Your task to perform on an android device: add a label to a message in the gmail app Image 0: 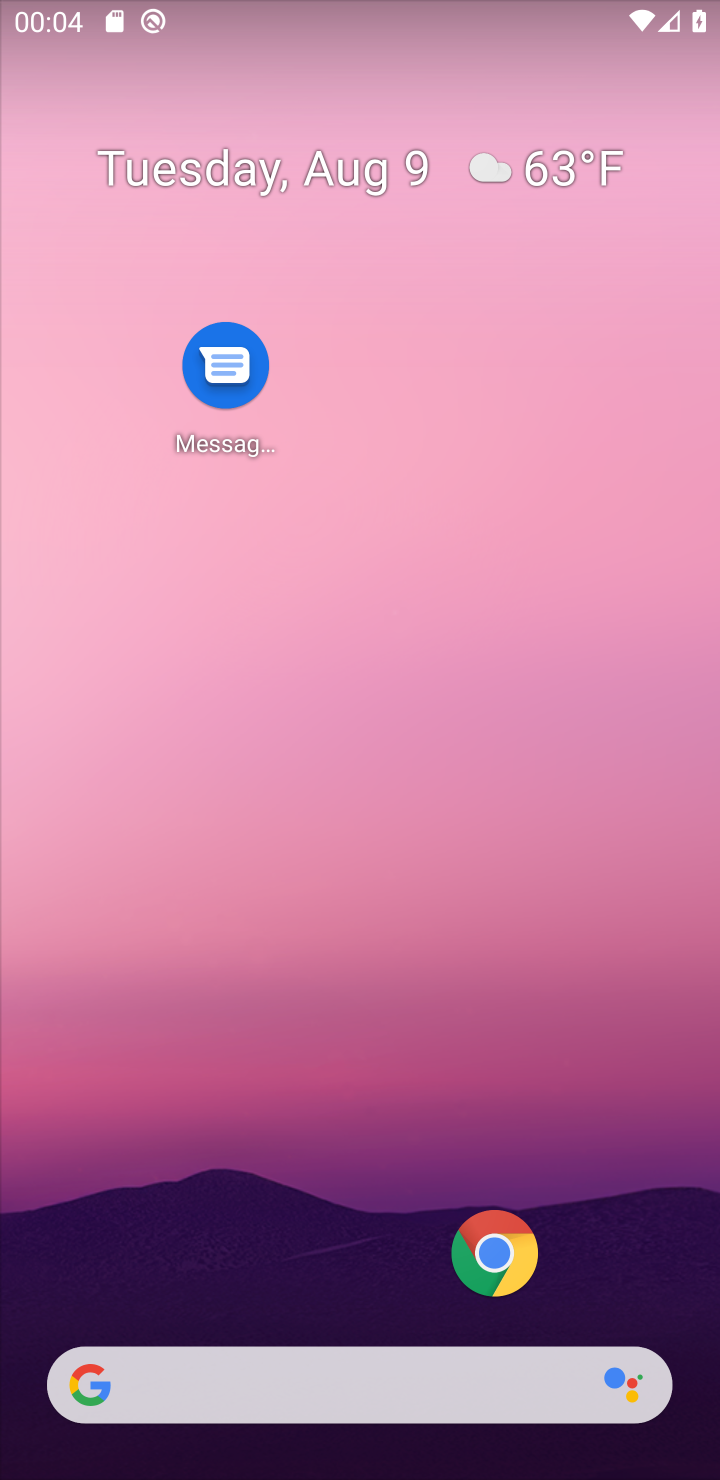
Step 0: drag from (82, 1170) to (93, 693)
Your task to perform on an android device: add a label to a message in the gmail app Image 1: 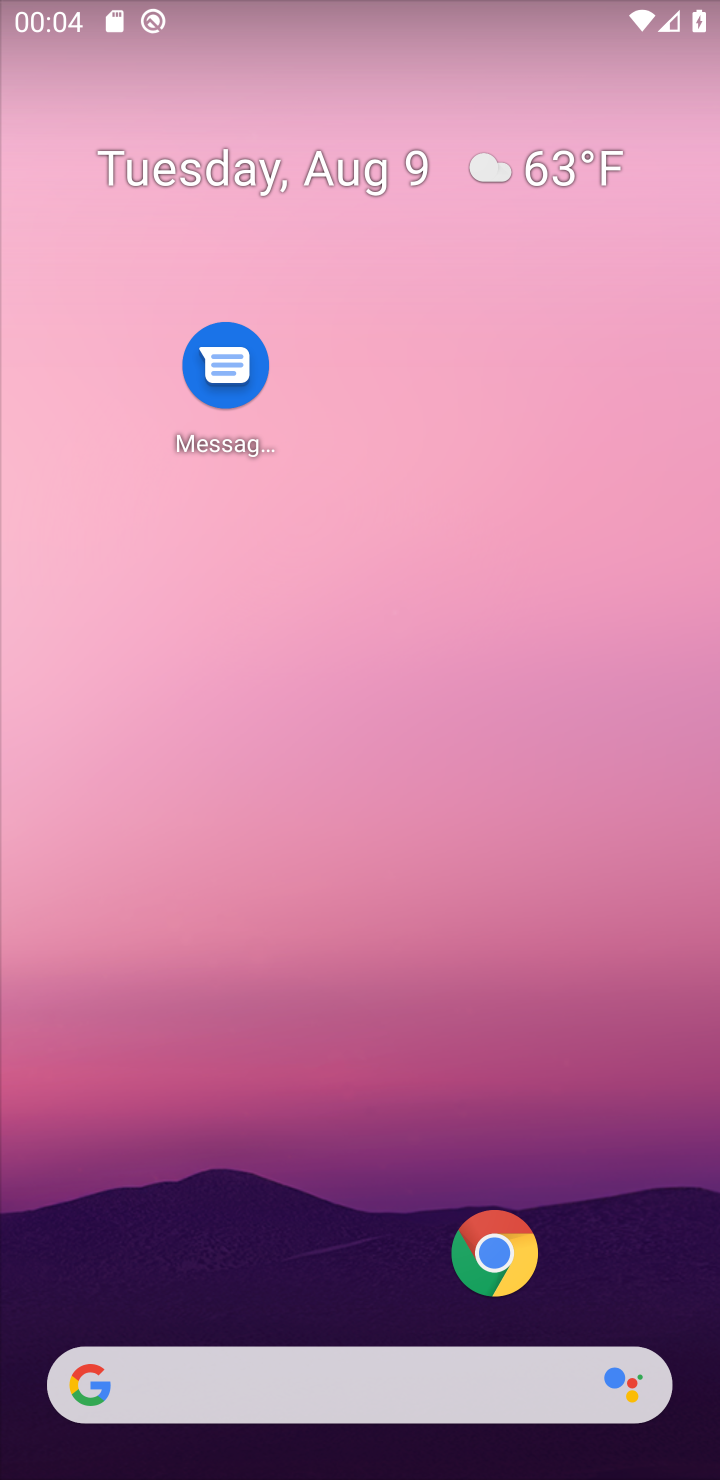
Step 1: drag from (233, 1096) to (251, 459)
Your task to perform on an android device: add a label to a message in the gmail app Image 2: 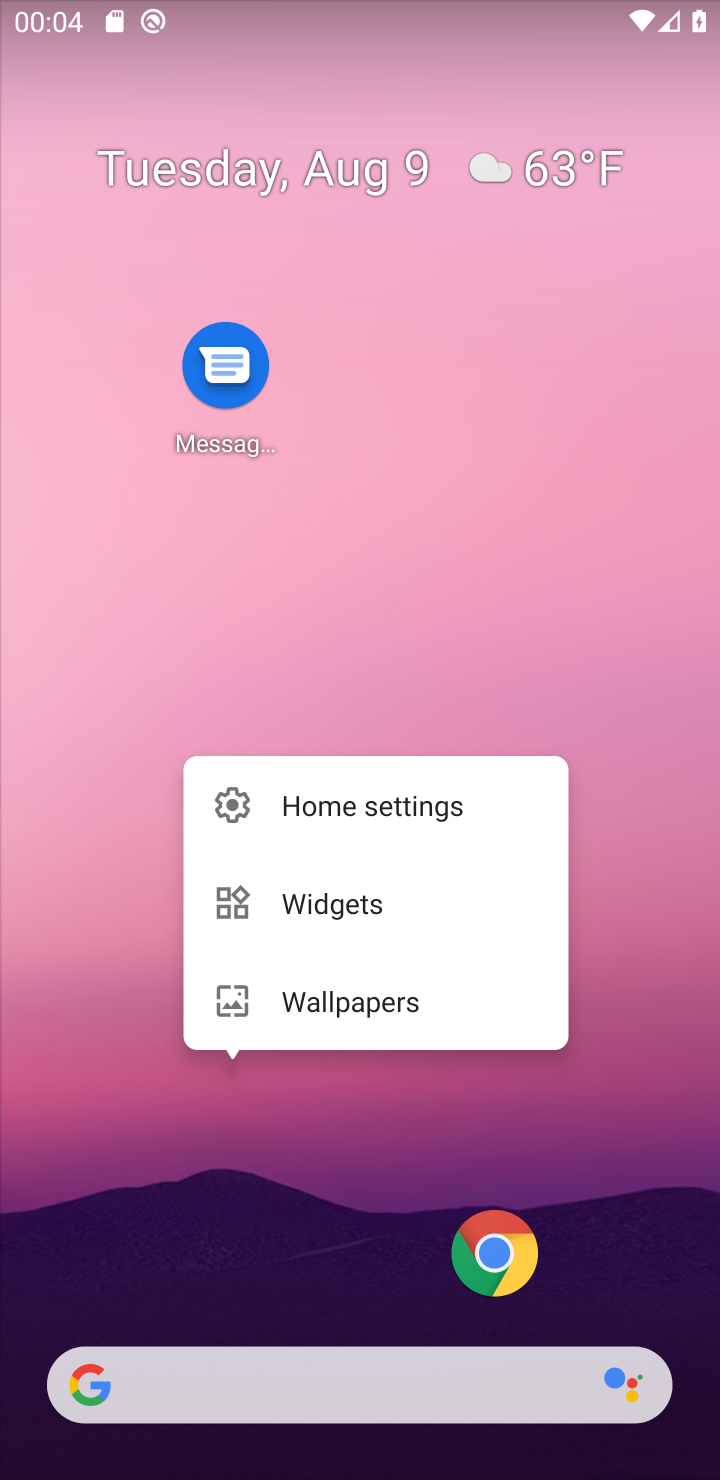
Step 2: drag from (201, 892) to (108, 904)
Your task to perform on an android device: add a label to a message in the gmail app Image 3: 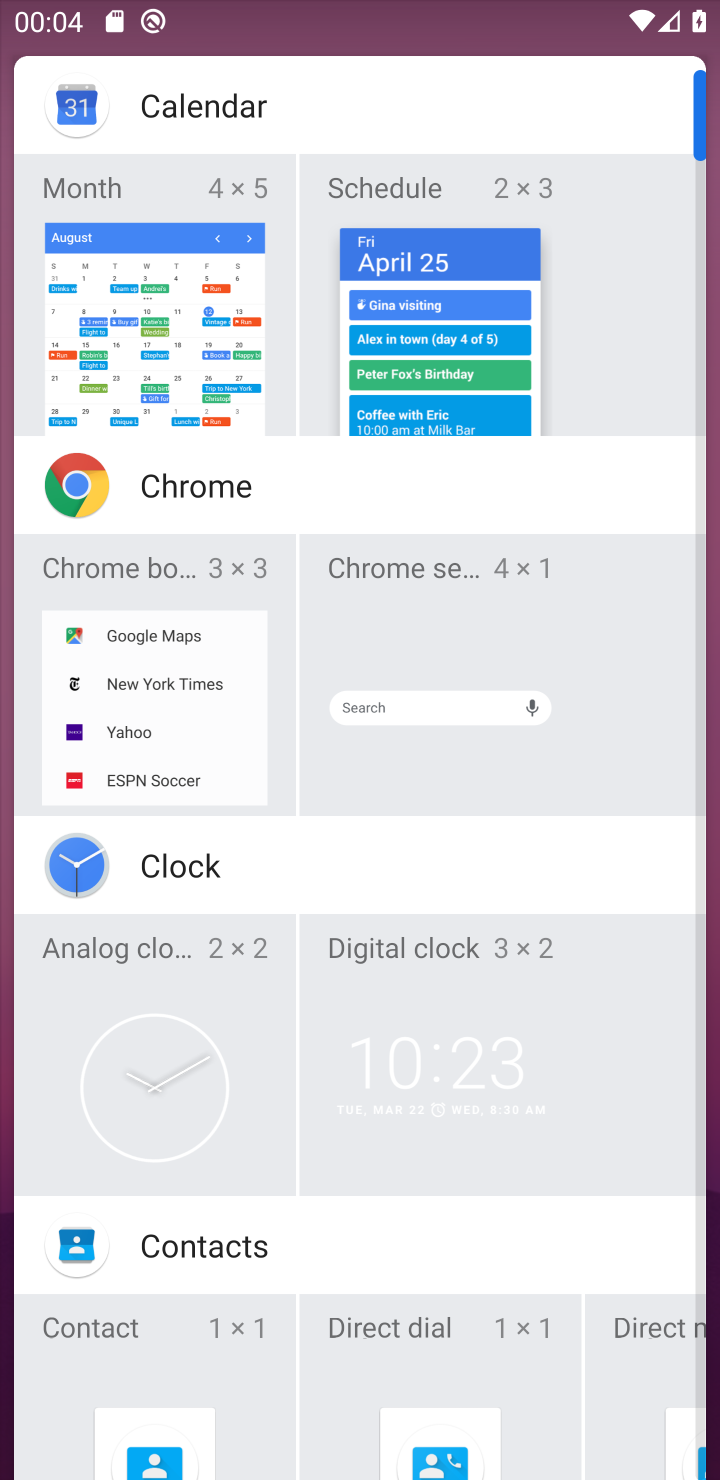
Step 3: press home button
Your task to perform on an android device: add a label to a message in the gmail app Image 4: 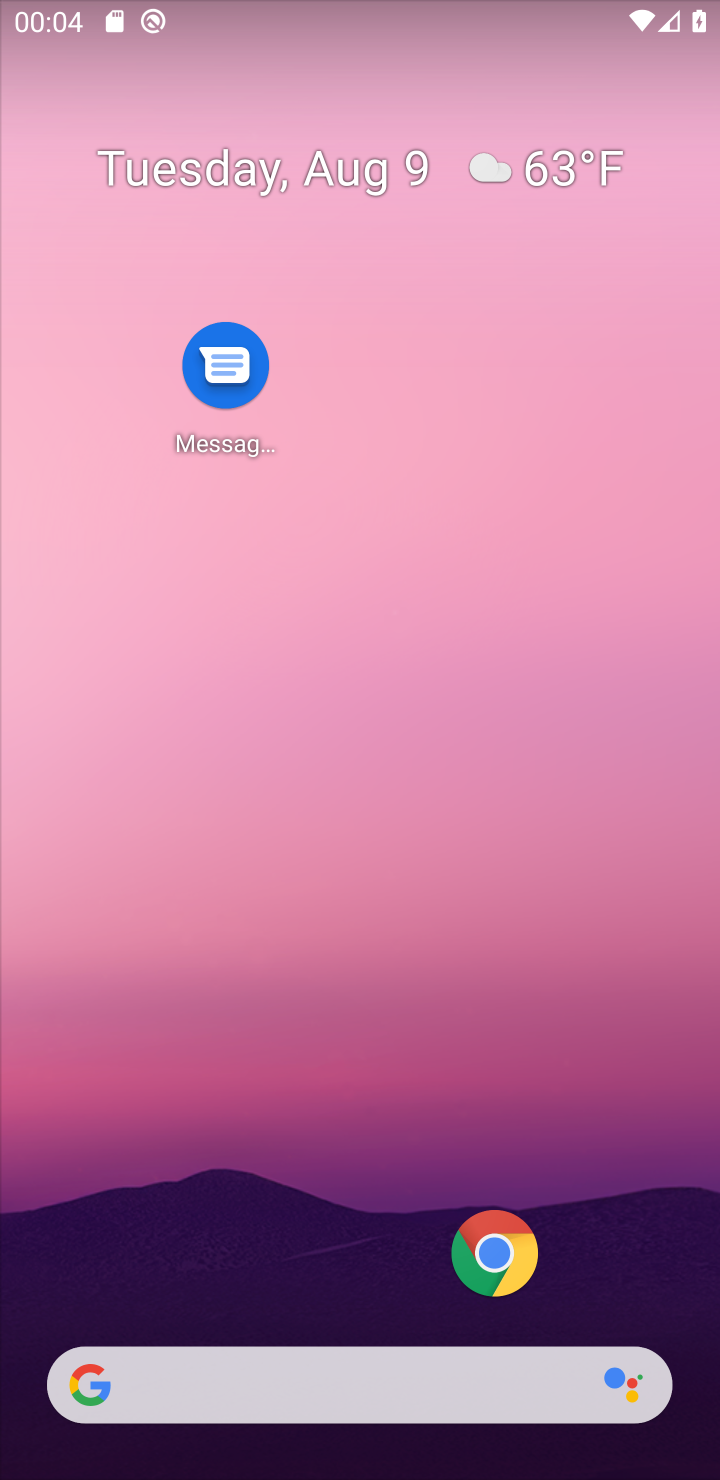
Step 4: drag from (190, 1041) to (205, 260)
Your task to perform on an android device: add a label to a message in the gmail app Image 5: 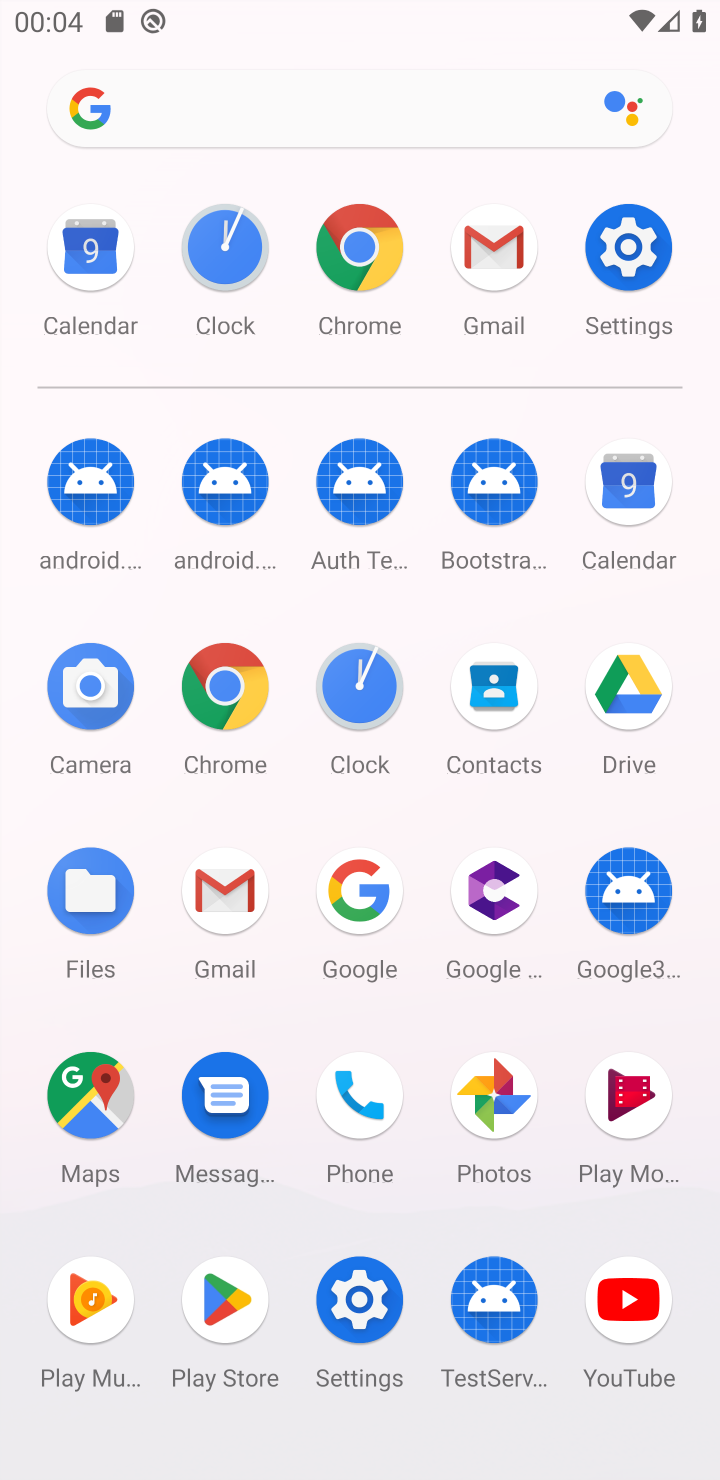
Step 5: click (210, 871)
Your task to perform on an android device: add a label to a message in the gmail app Image 6: 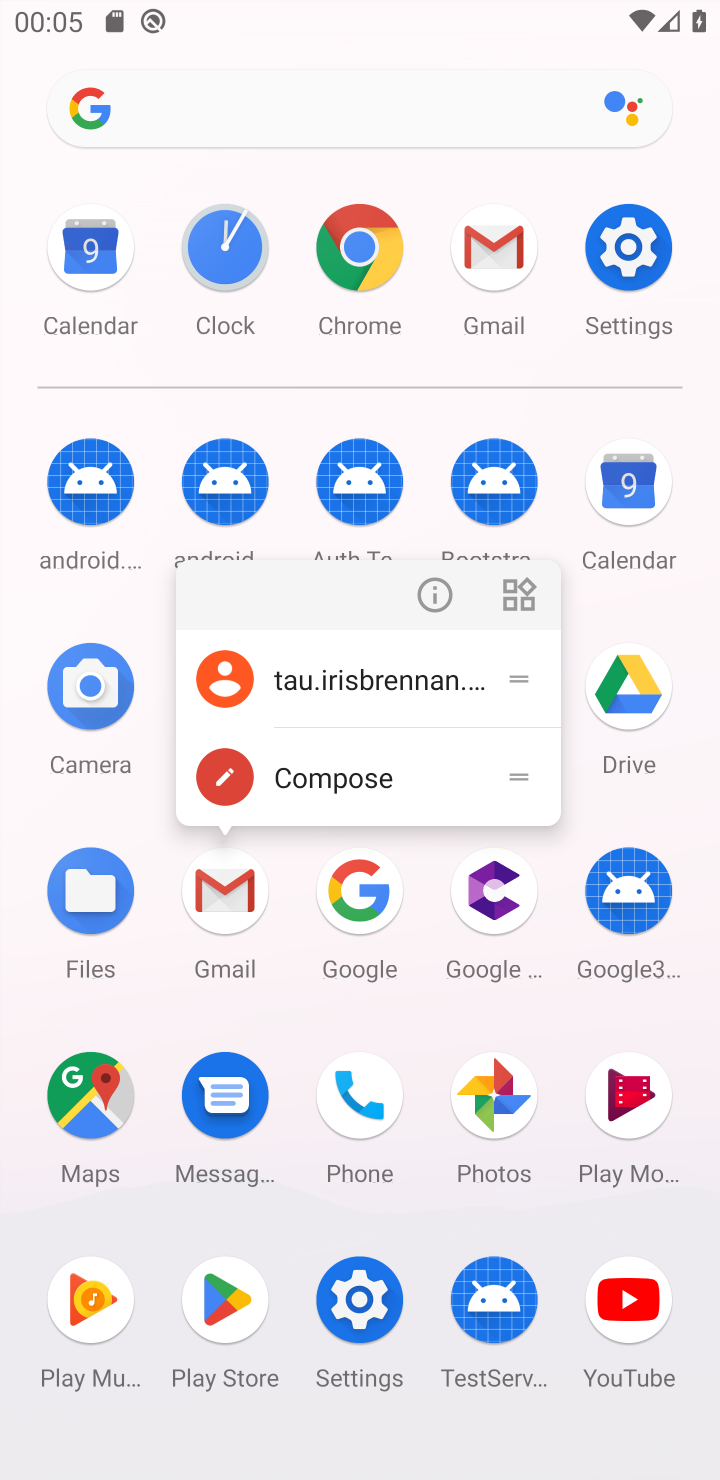
Step 6: click (218, 924)
Your task to perform on an android device: add a label to a message in the gmail app Image 7: 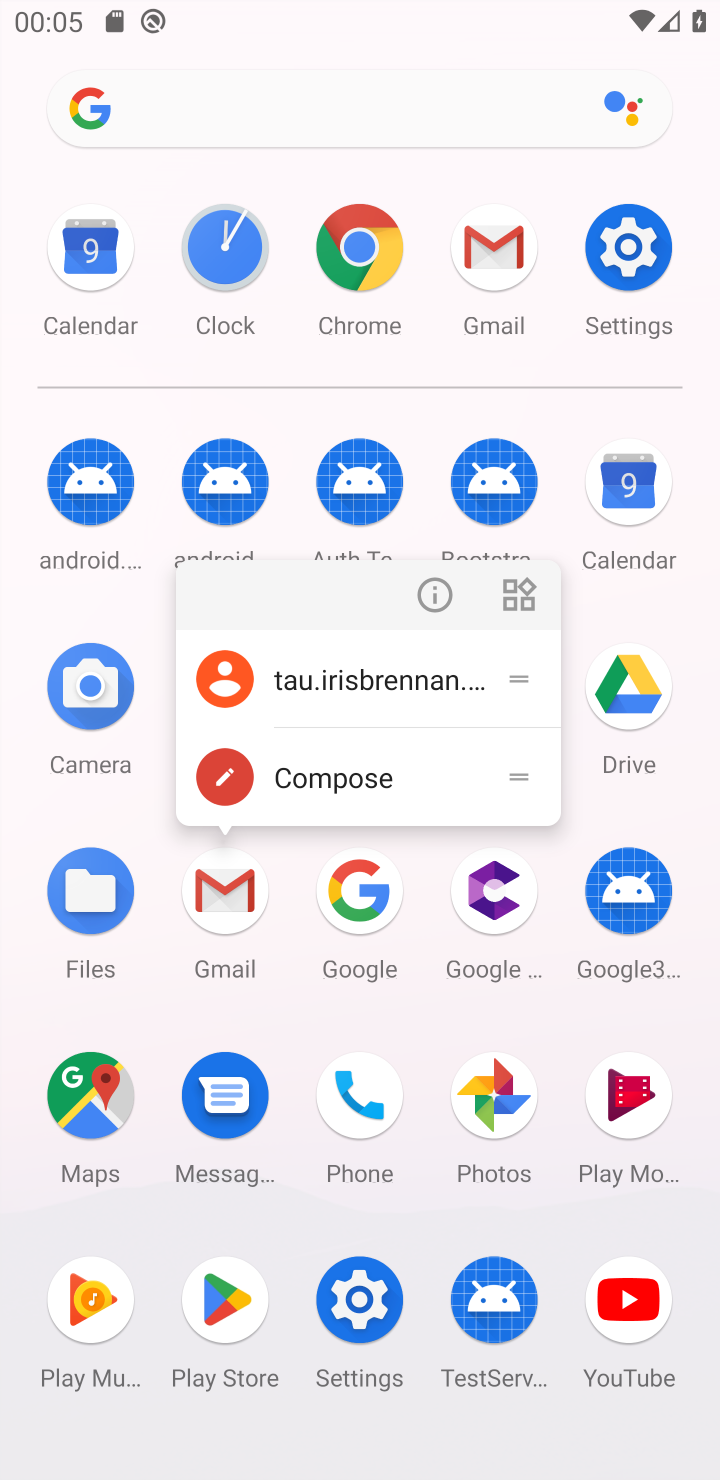
Step 7: click (226, 906)
Your task to perform on an android device: add a label to a message in the gmail app Image 8: 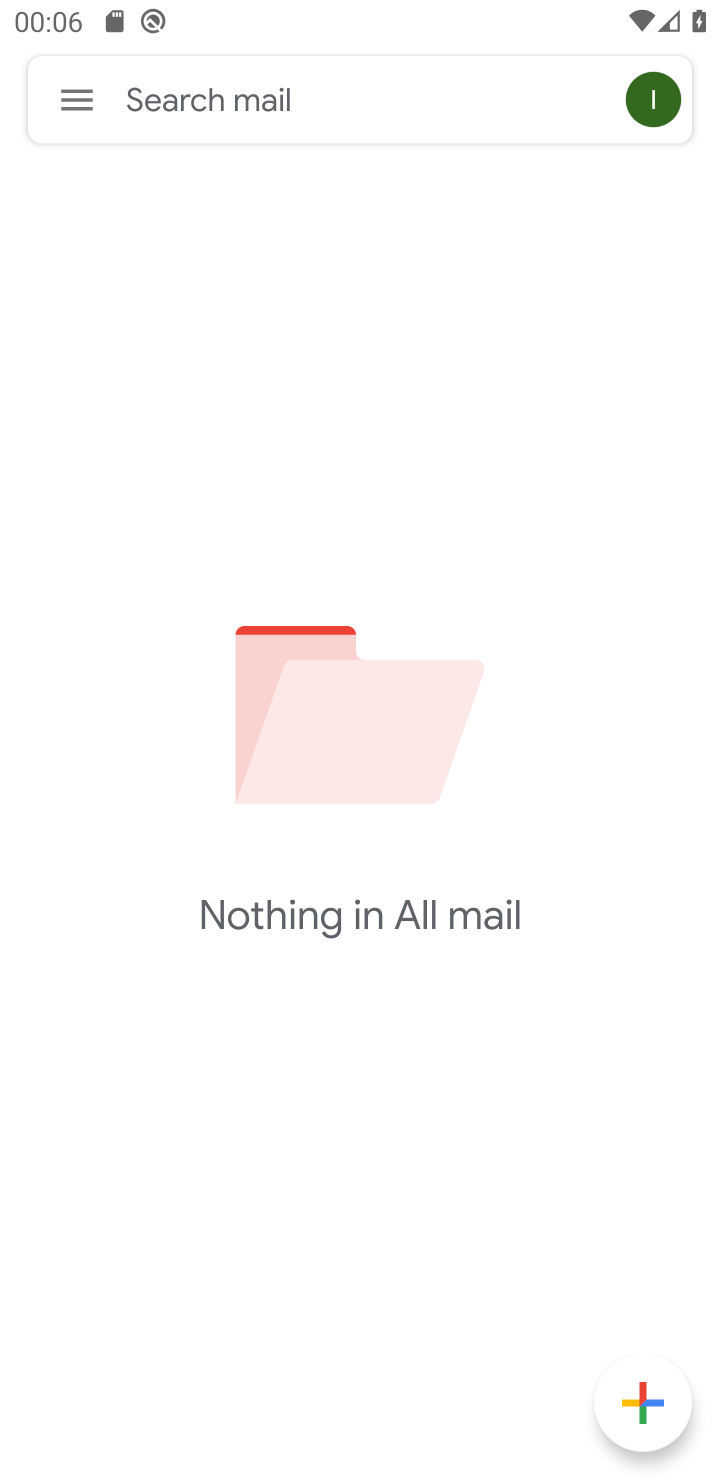
Step 8: task complete